Your task to perform on an android device: open a new tab in the chrome app Image 0: 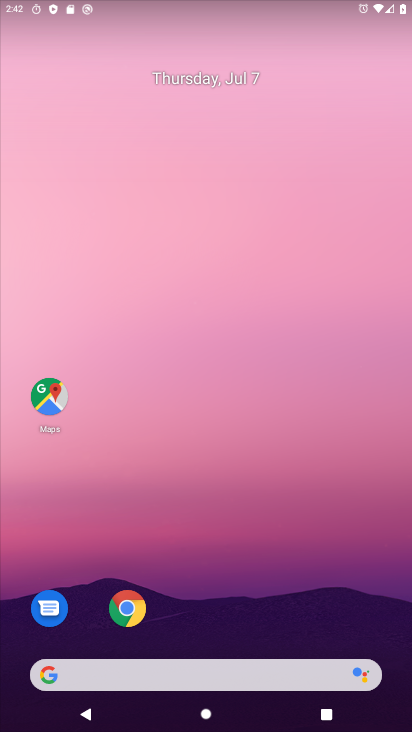
Step 0: click (125, 605)
Your task to perform on an android device: open a new tab in the chrome app Image 1: 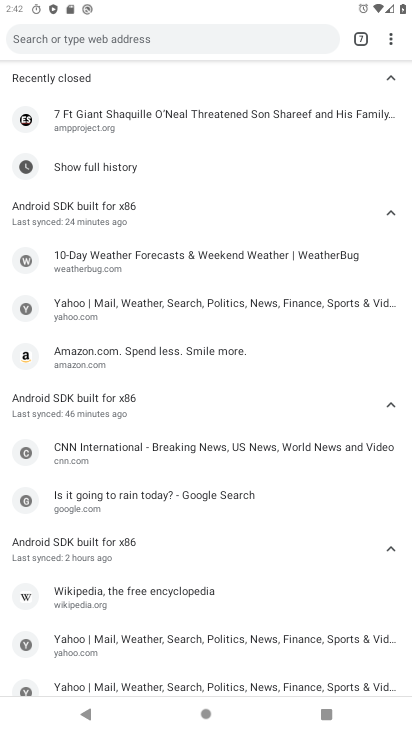
Step 1: click (393, 40)
Your task to perform on an android device: open a new tab in the chrome app Image 2: 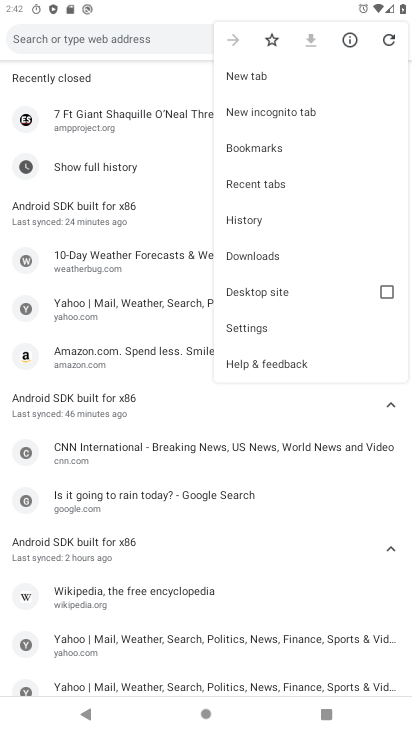
Step 2: click (252, 75)
Your task to perform on an android device: open a new tab in the chrome app Image 3: 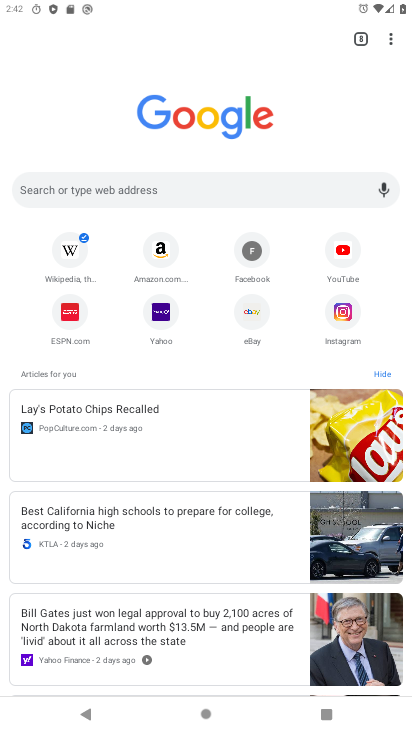
Step 3: task complete